Your task to perform on an android device: Show the shopping cart on amazon. Add usb-c to usb-b to the cart on amazon Image 0: 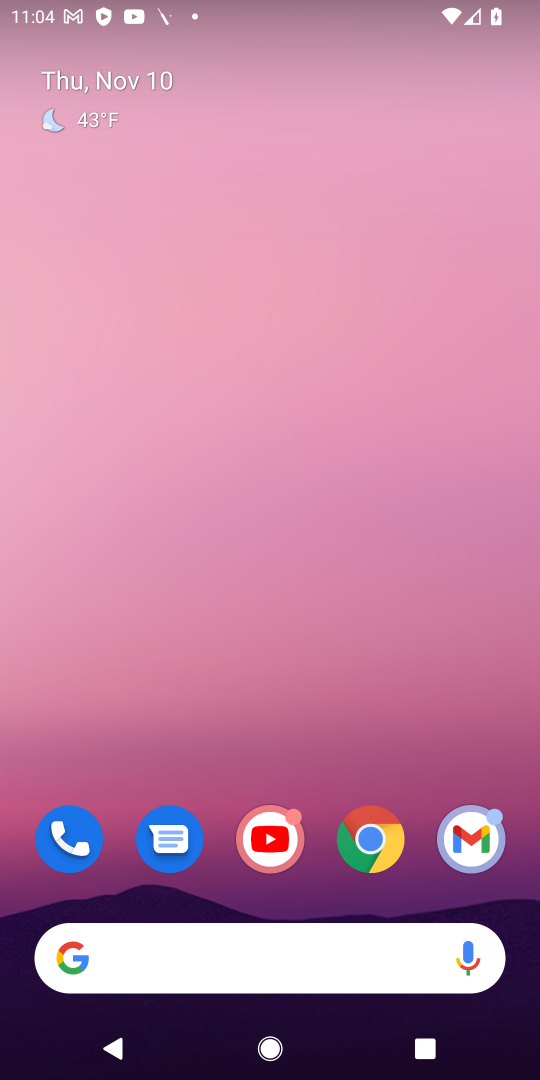
Step 0: click (377, 838)
Your task to perform on an android device: Show the shopping cart on amazon. Add usb-c to usb-b to the cart on amazon Image 1: 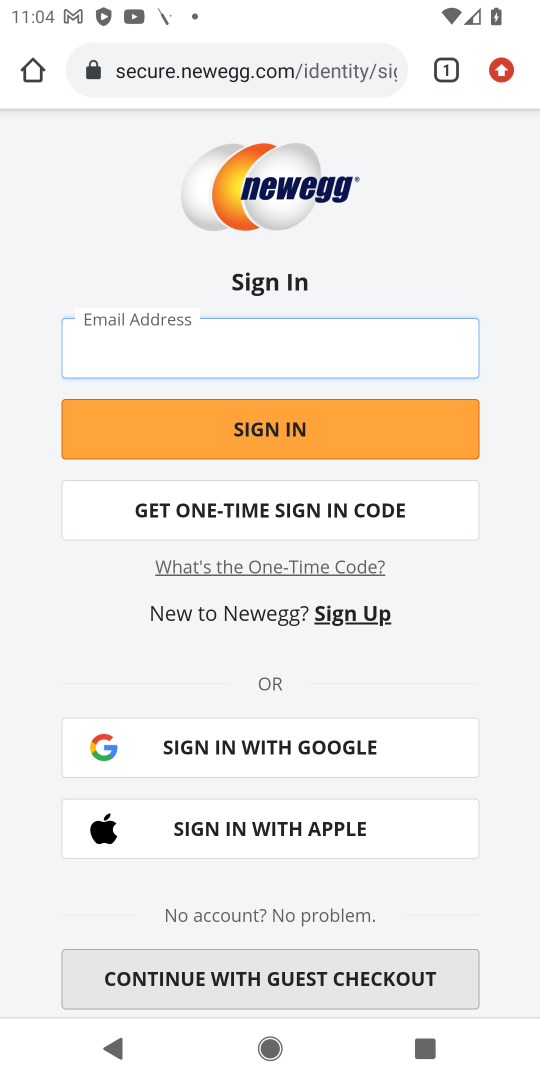
Step 1: click (26, 65)
Your task to perform on an android device: Show the shopping cart on amazon. Add usb-c to usb-b to the cart on amazon Image 2: 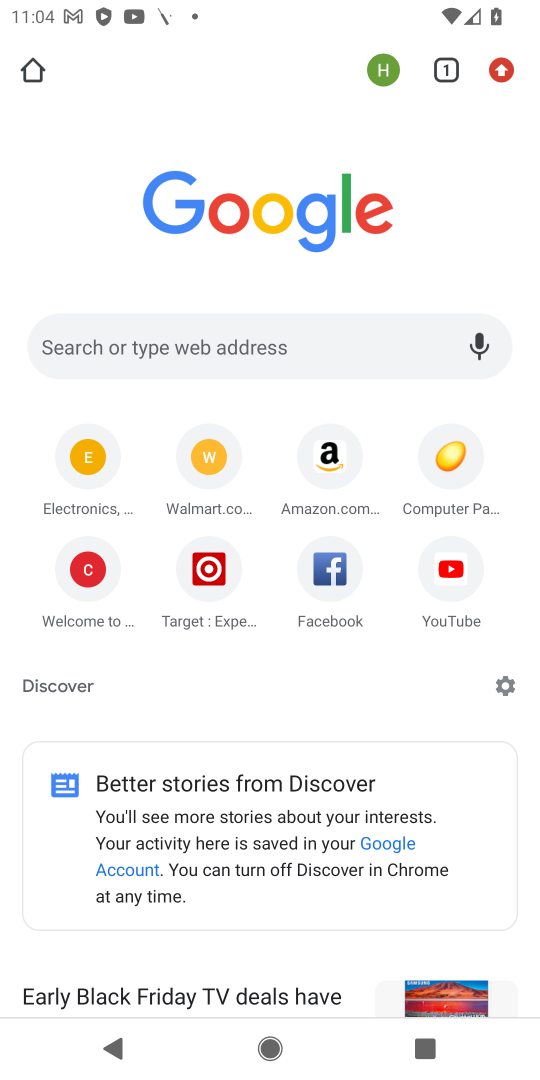
Step 2: click (325, 456)
Your task to perform on an android device: Show the shopping cart on amazon. Add usb-c to usb-b to the cart on amazon Image 3: 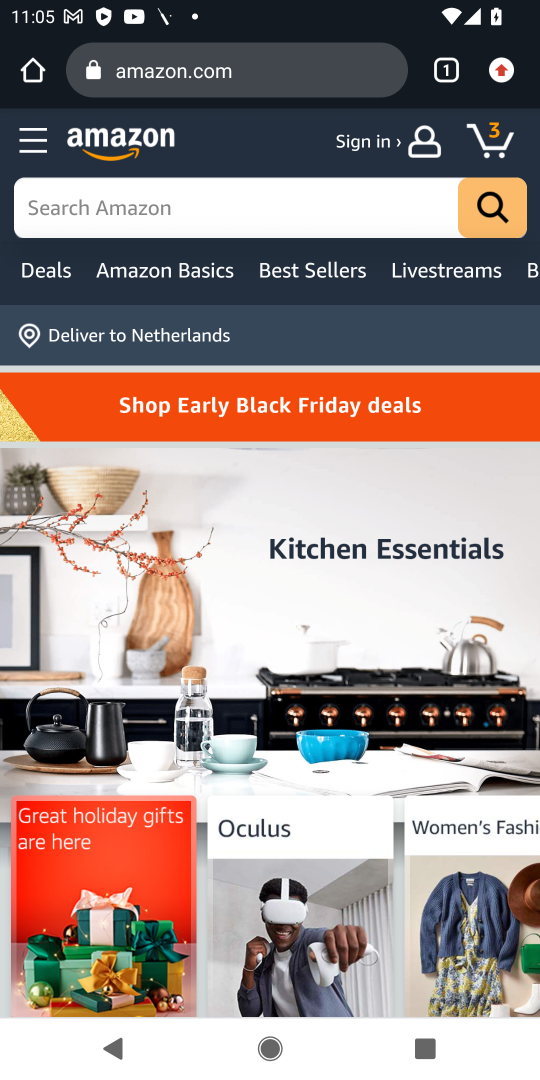
Step 3: click (355, 203)
Your task to perform on an android device: Show the shopping cart on amazon. Add usb-c to usb-b to the cart on amazon Image 4: 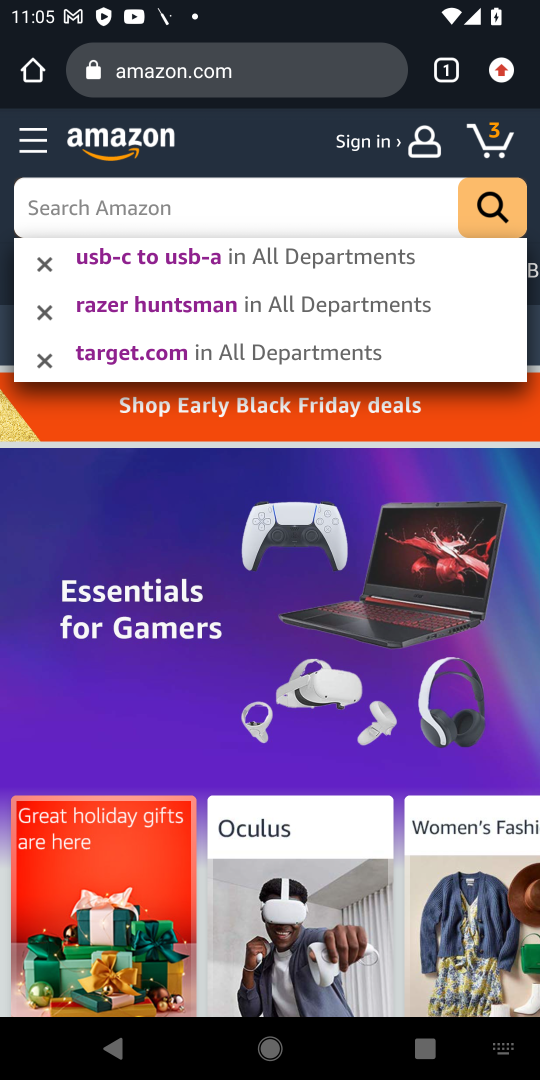
Step 4: type "usb-c to usb-b"
Your task to perform on an android device: Show the shopping cart on amazon. Add usb-c to usb-b to the cart on amazon Image 5: 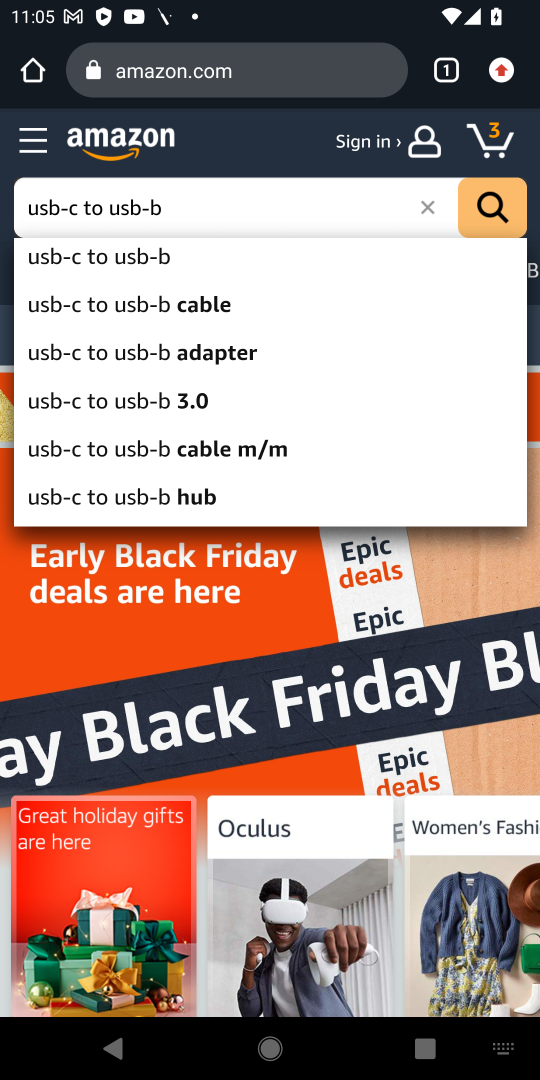
Step 5: click (147, 256)
Your task to perform on an android device: Show the shopping cart on amazon. Add usb-c to usb-b to the cart on amazon Image 6: 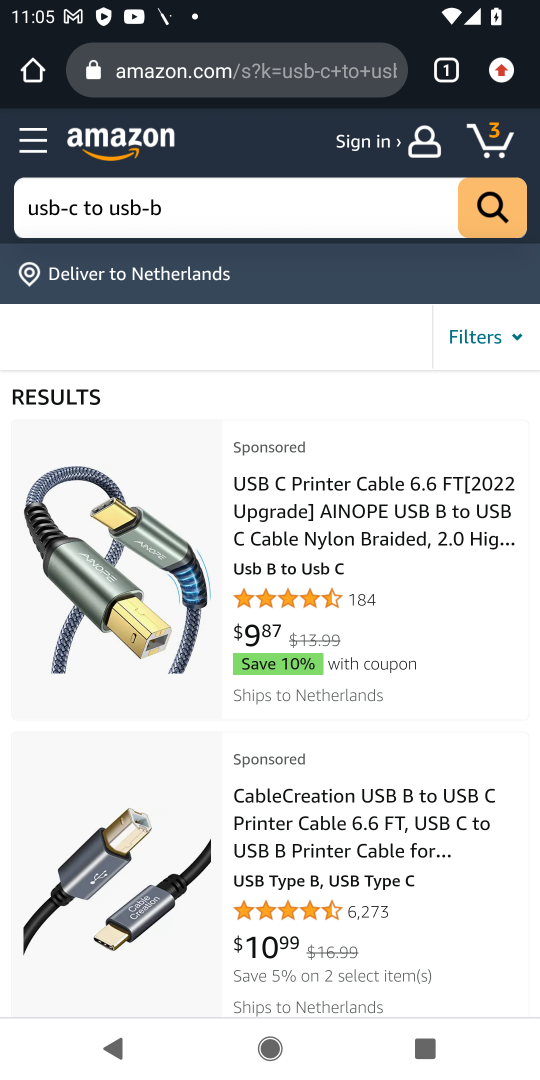
Step 6: click (102, 563)
Your task to perform on an android device: Show the shopping cart on amazon. Add usb-c to usb-b to the cart on amazon Image 7: 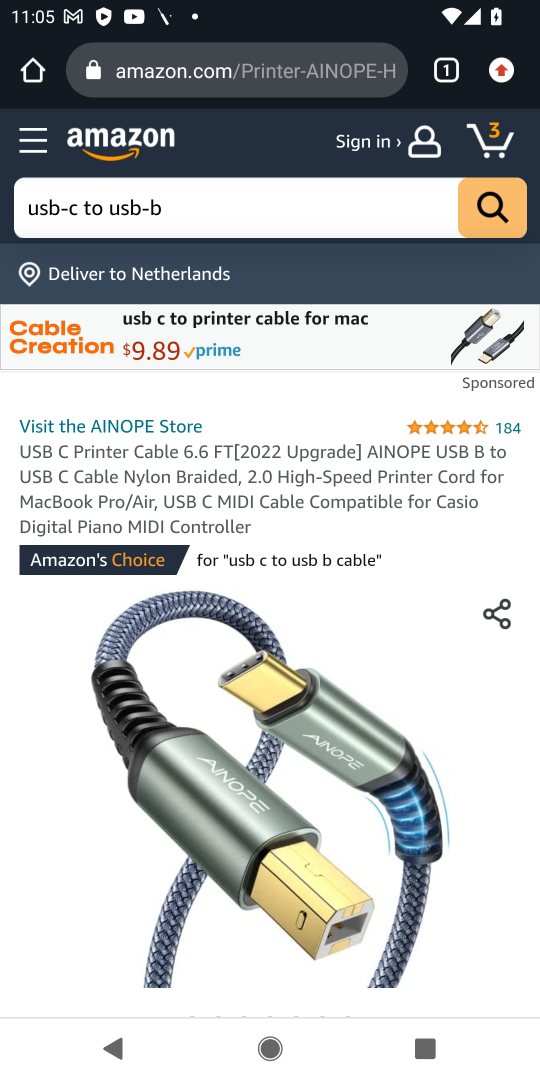
Step 7: drag from (421, 788) to (396, 310)
Your task to perform on an android device: Show the shopping cart on amazon. Add usb-c to usb-b to the cart on amazon Image 8: 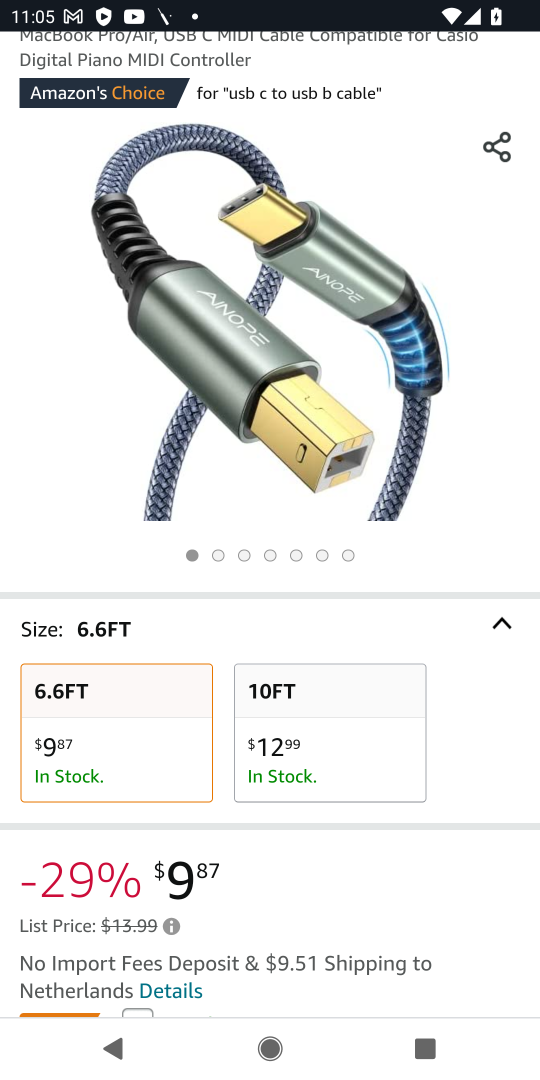
Step 8: drag from (455, 809) to (395, 269)
Your task to perform on an android device: Show the shopping cart on amazon. Add usb-c to usb-b to the cart on amazon Image 9: 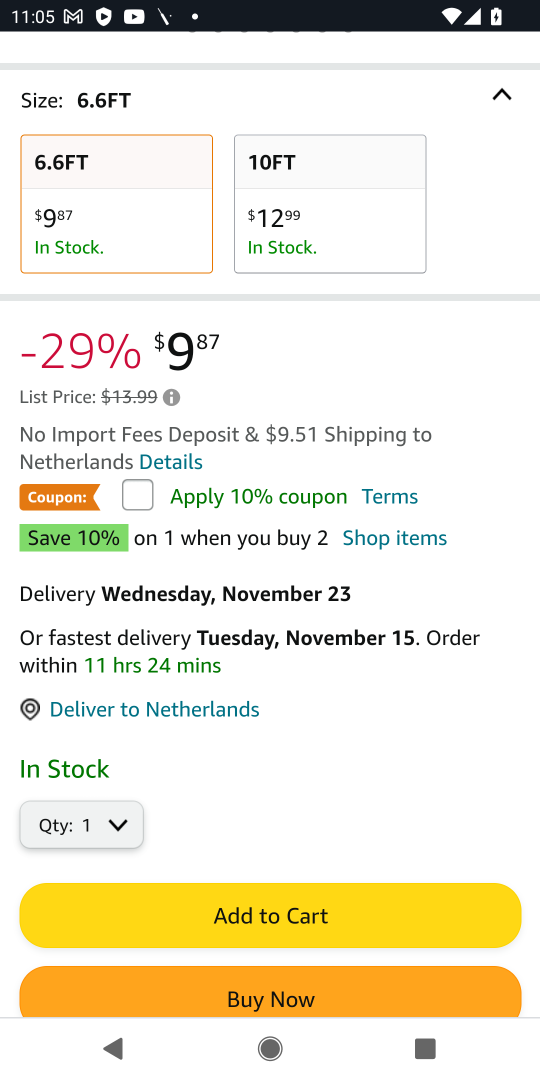
Step 9: click (297, 910)
Your task to perform on an android device: Show the shopping cart on amazon. Add usb-c to usb-b to the cart on amazon Image 10: 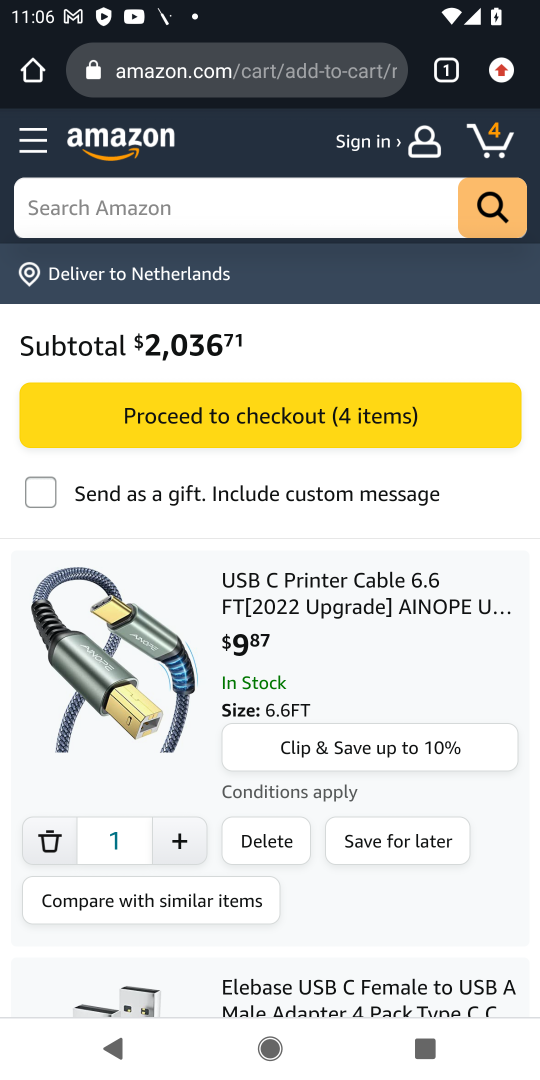
Step 10: task complete